Your task to perform on an android device: Show me the best rated 42 inch TV on Walmart. Image 0: 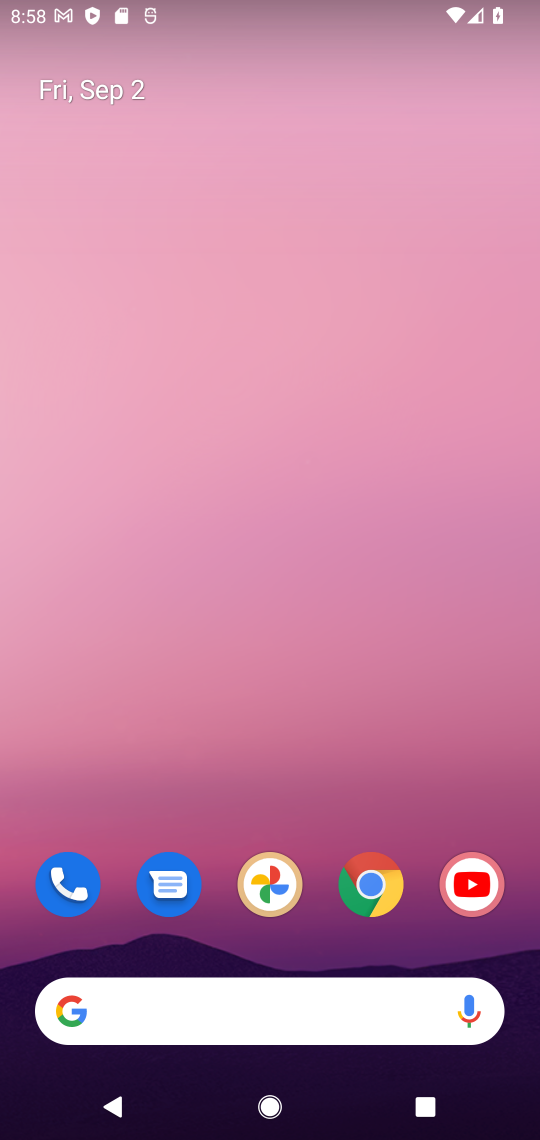
Step 0: click (379, 888)
Your task to perform on an android device: Show me the best rated 42 inch TV on Walmart. Image 1: 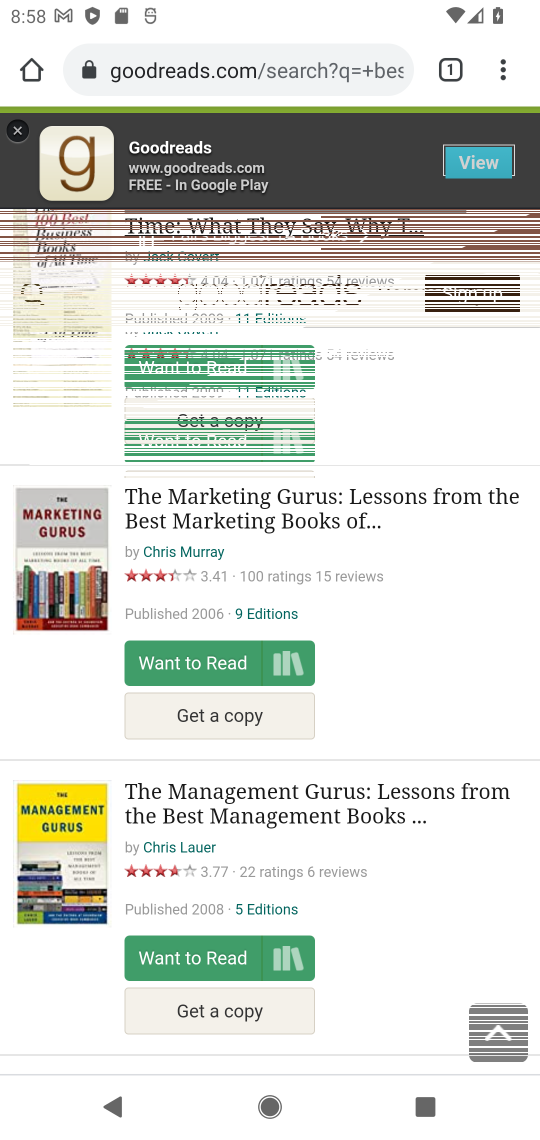
Step 1: drag from (375, 630) to (357, 962)
Your task to perform on an android device: Show me the best rated 42 inch TV on Walmart. Image 2: 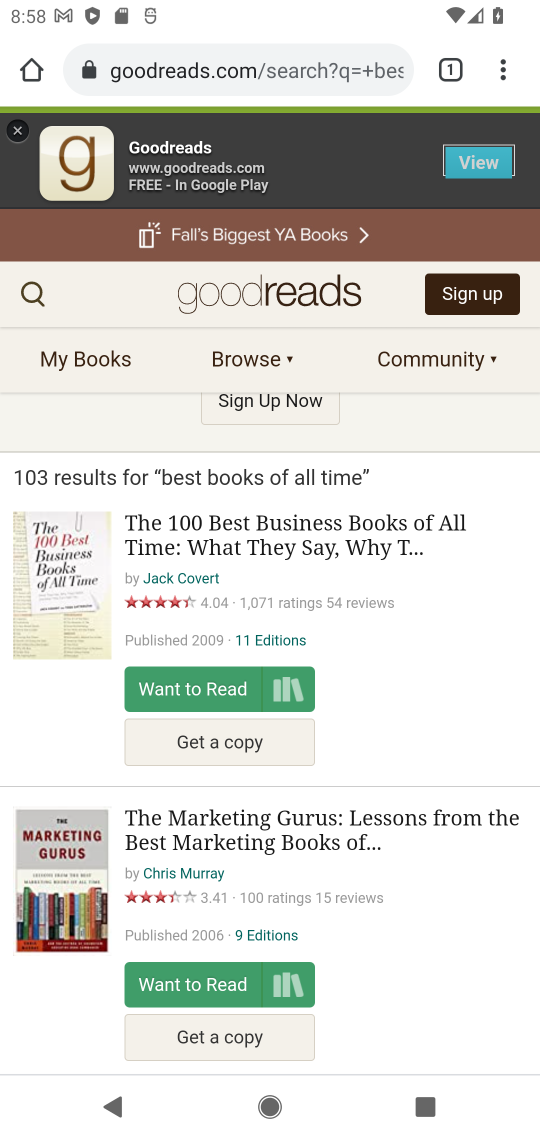
Step 2: click (198, 70)
Your task to perform on an android device: Show me the best rated 42 inch TV on Walmart. Image 3: 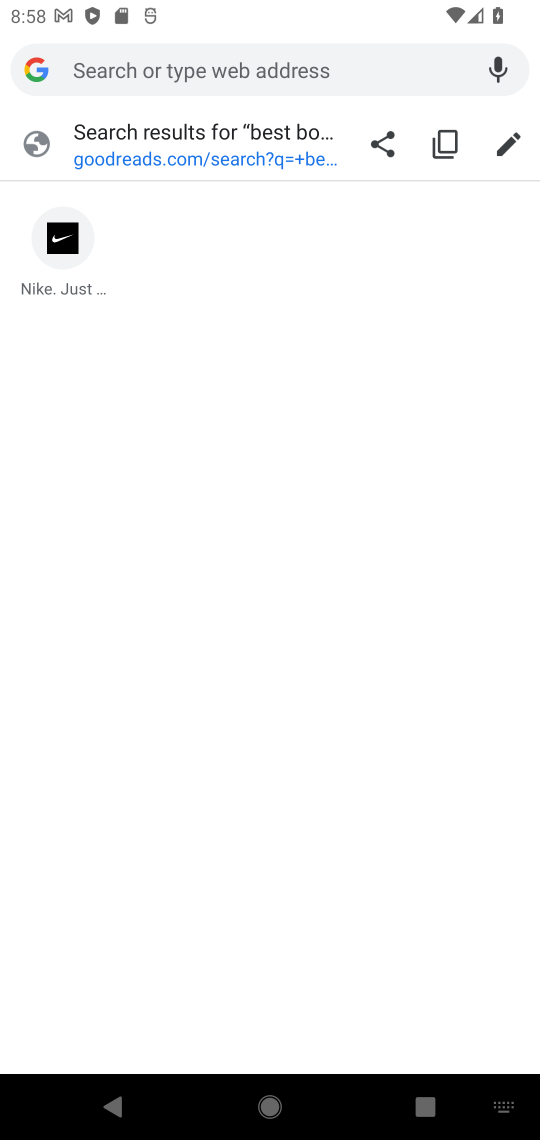
Step 3: type "walmart"
Your task to perform on an android device: Show me the best rated 42 inch TV on Walmart. Image 4: 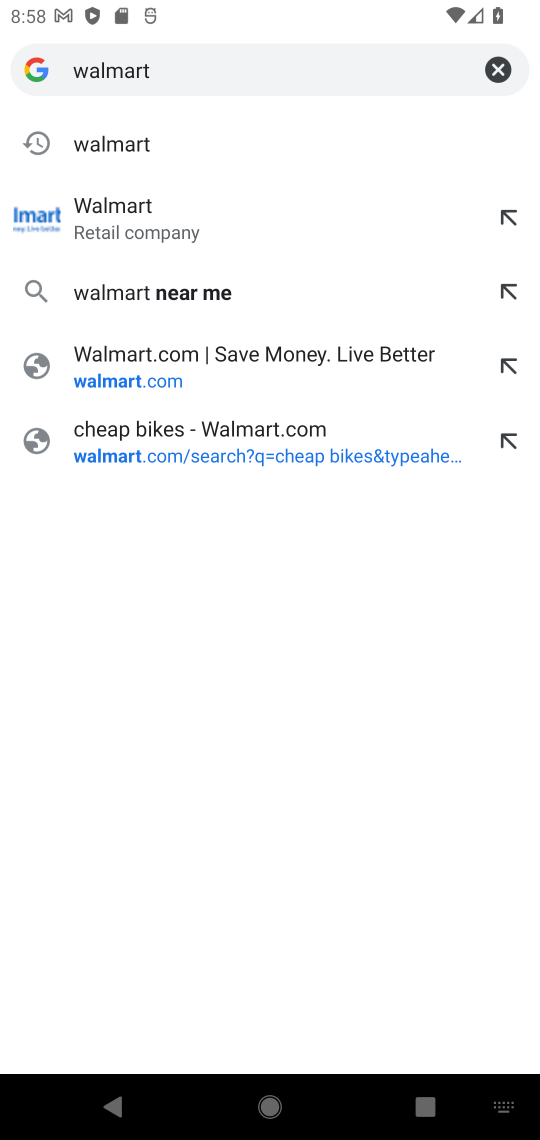
Step 4: click (117, 159)
Your task to perform on an android device: Show me the best rated 42 inch TV on Walmart. Image 5: 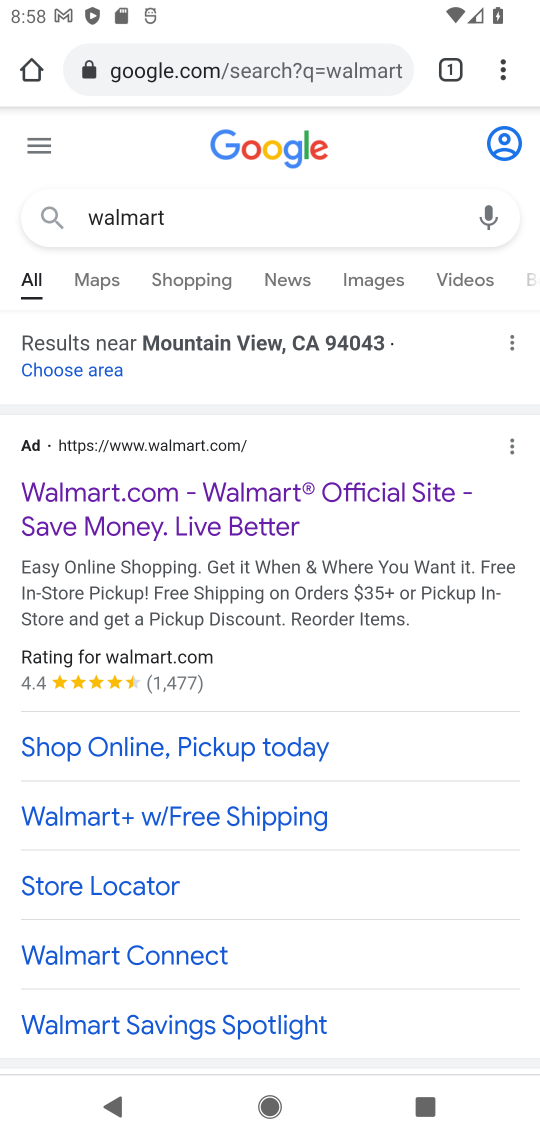
Step 5: drag from (347, 761) to (350, 180)
Your task to perform on an android device: Show me the best rated 42 inch TV on Walmart. Image 6: 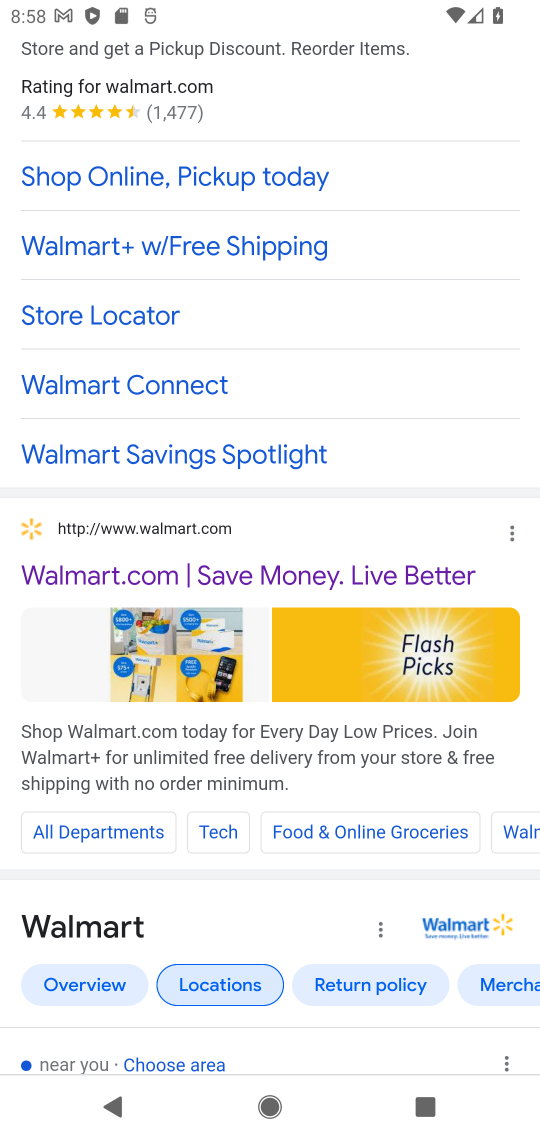
Step 6: click (122, 581)
Your task to perform on an android device: Show me the best rated 42 inch TV on Walmart. Image 7: 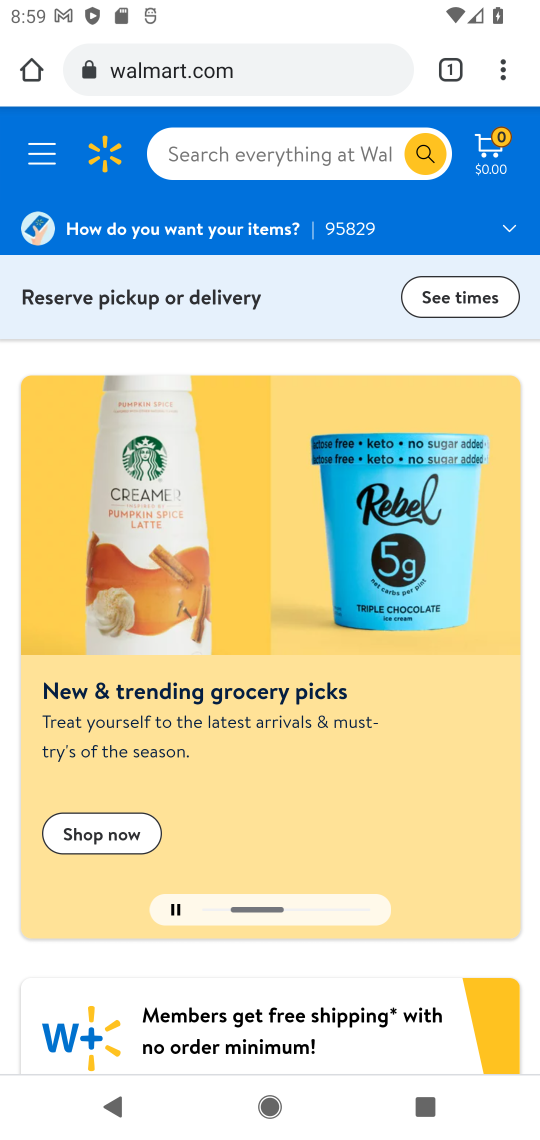
Step 7: drag from (220, 723) to (220, 483)
Your task to perform on an android device: Show me the best rated 42 inch TV on Walmart. Image 8: 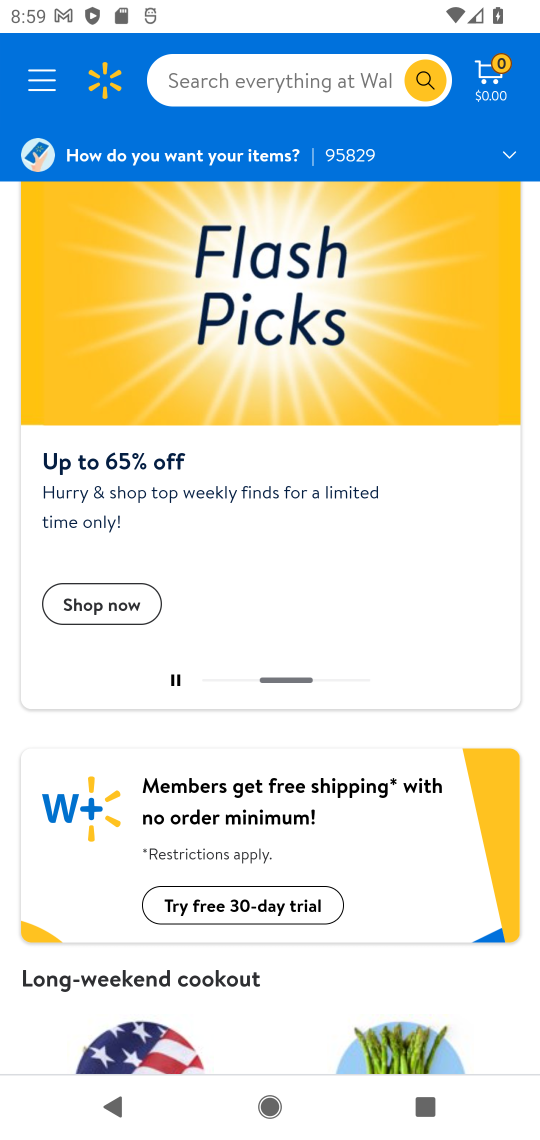
Step 8: click (241, 86)
Your task to perform on an android device: Show me the best rated 42 inch TV on Walmart. Image 9: 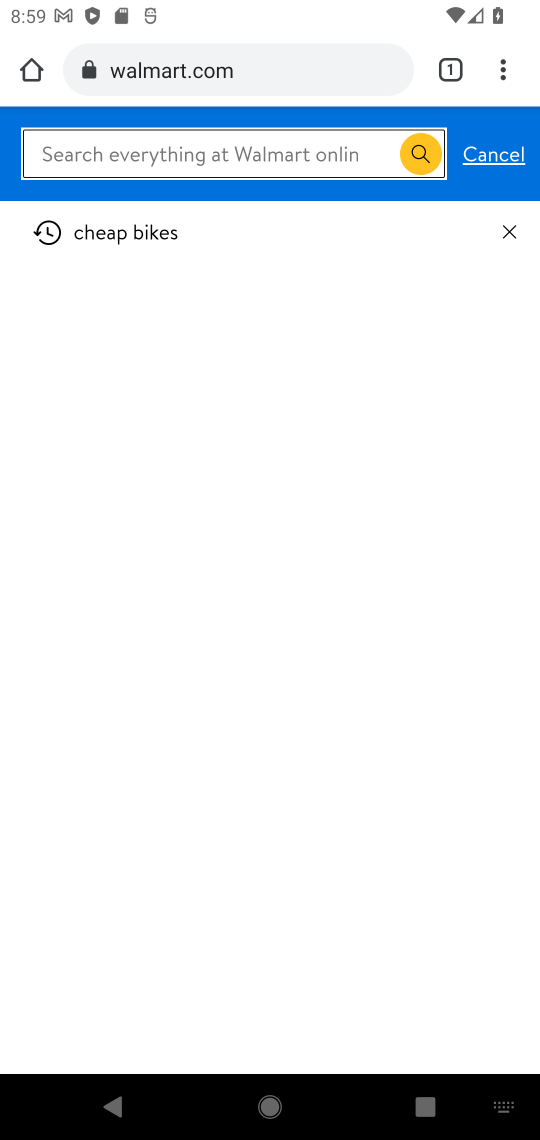
Step 9: type "best rated 42 inch TV"
Your task to perform on an android device: Show me the best rated 42 inch TV on Walmart. Image 10: 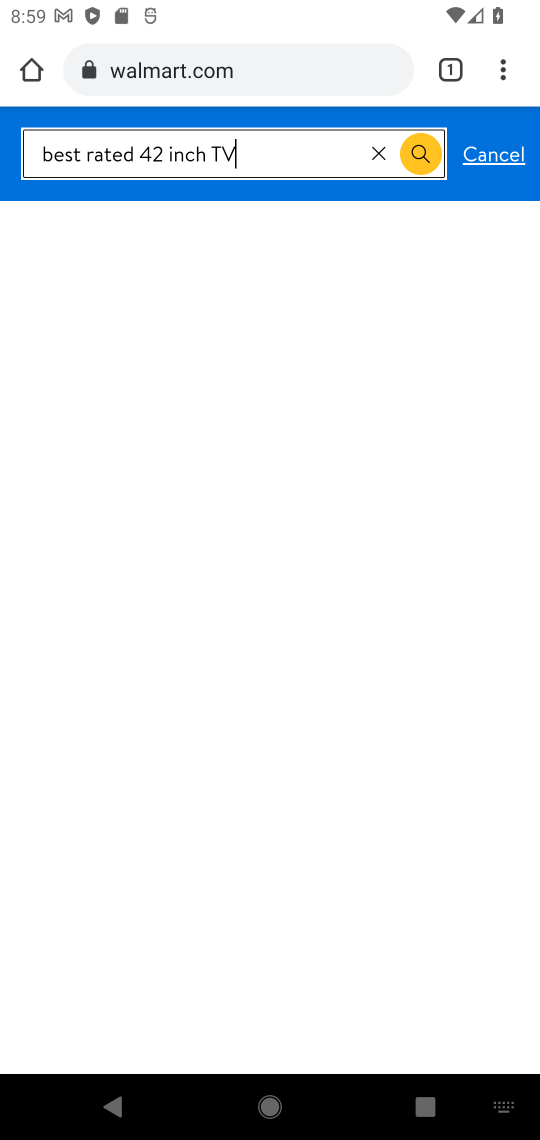
Step 10: click (420, 154)
Your task to perform on an android device: Show me the best rated 42 inch TV on Walmart. Image 11: 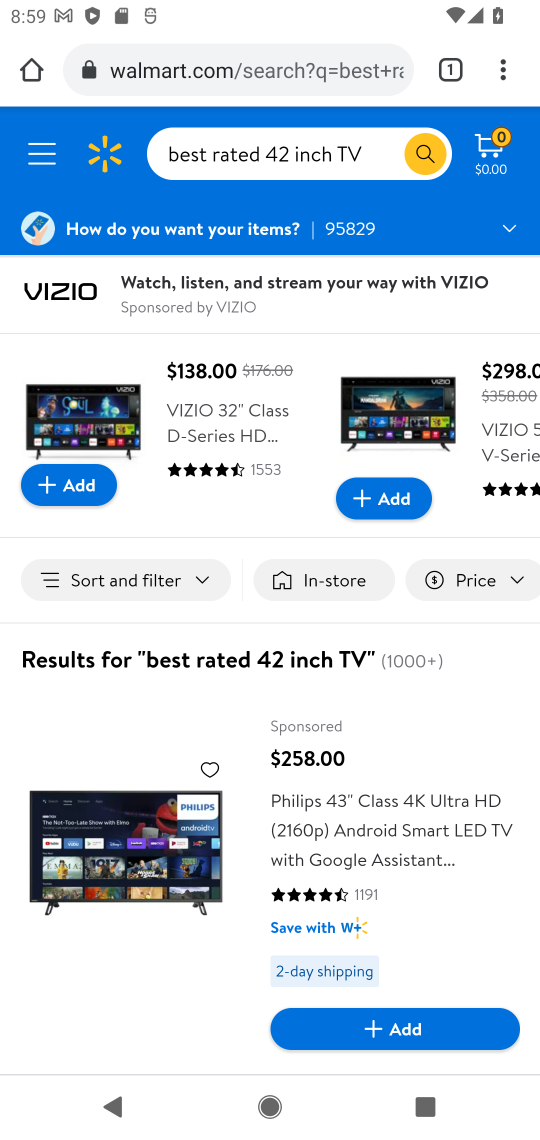
Step 11: task complete